Your task to perform on an android device: Do I have any events tomorrow? Image 0: 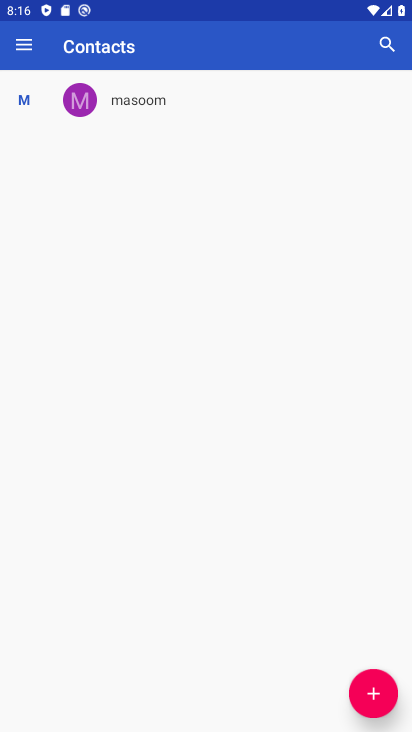
Step 0: press home button
Your task to perform on an android device: Do I have any events tomorrow? Image 1: 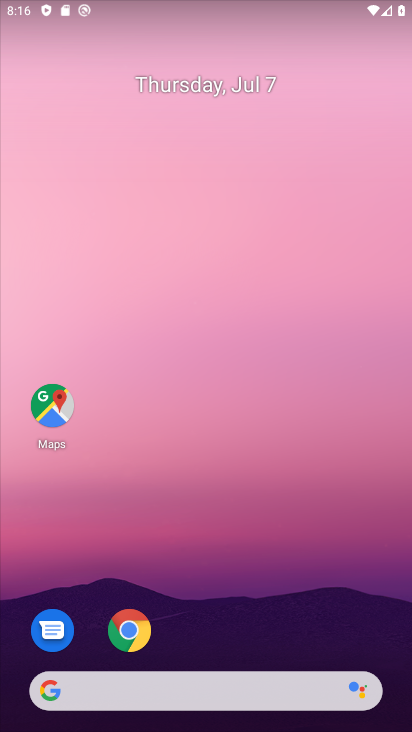
Step 1: drag from (328, 621) to (278, 312)
Your task to perform on an android device: Do I have any events tomorrow? Image 2: 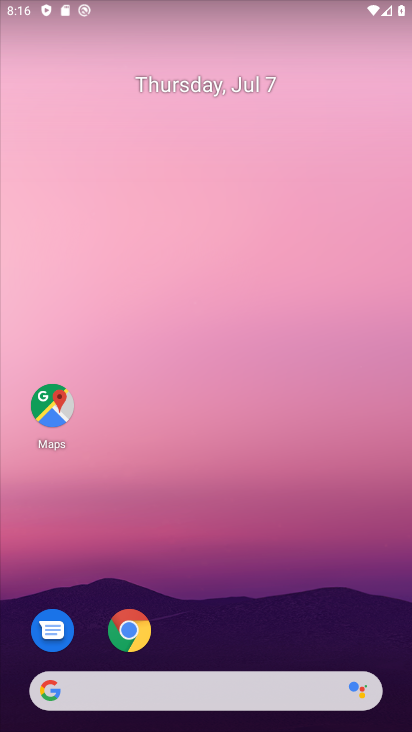
Step 2: drag from (238, 682) to (175, 284)
Your task to perform on an android device: Do I have any events tomorrow? Image 3: 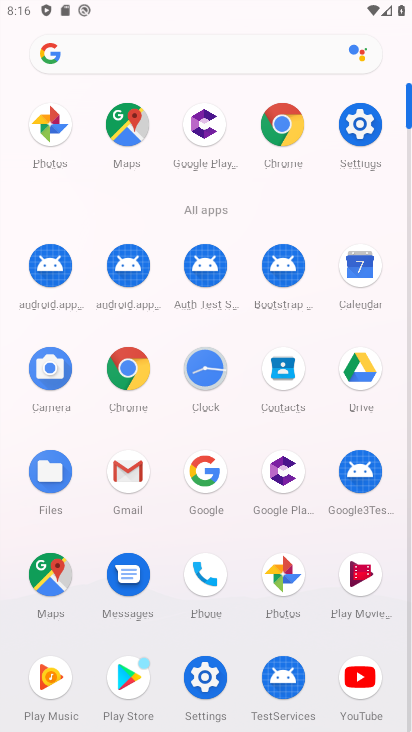
Step 3: click (370, 265)
Your task to perform on an android device: Do I have any events tomorrow? Image 4: 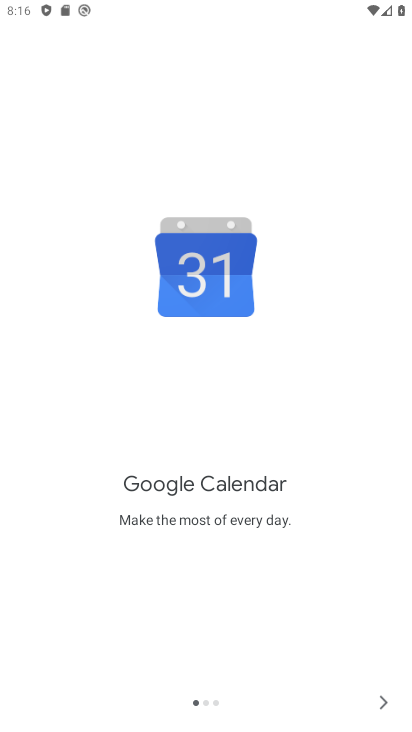
Step 4: click (381, 714)
Your task to perform on an android device: Do I have any events tomorrow? Image 5: 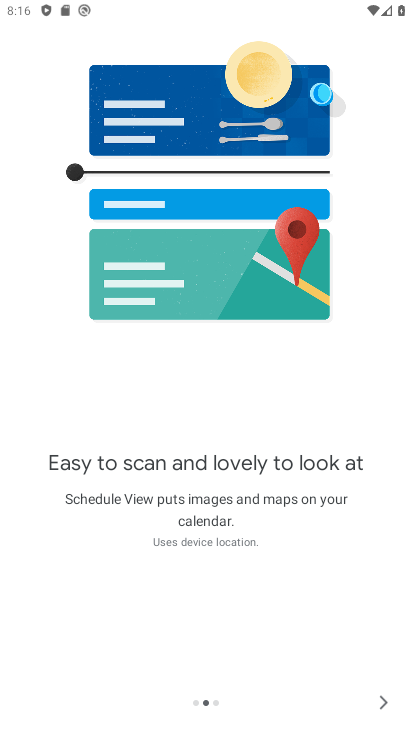
Step 5: click (381, 714)
Your task to perform on an android device: Do I have any events tomorrow? Image 6: 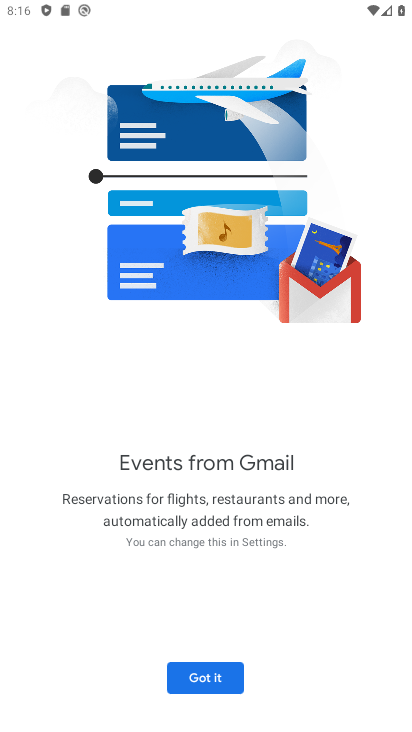
Step 6: click (381, 714)
Your task to perform on an android device: Do I have any events tomorrow? Image 7: 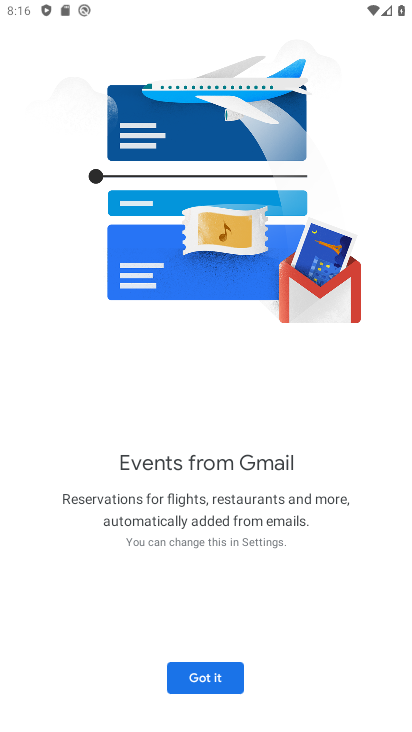
Step 7: click (188, 671)
Your task to perform on an android device: Do I have any events tomorrow? Image 8: 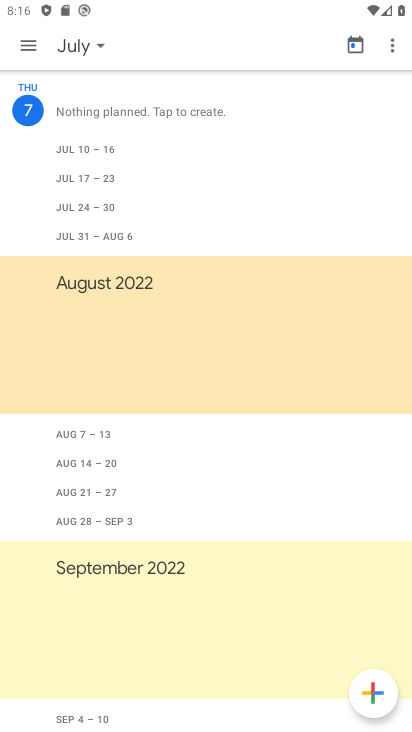
Step 8: click (80, 56)
Your task to perform on an android device: Do I have any events tomorrow? Image 9: 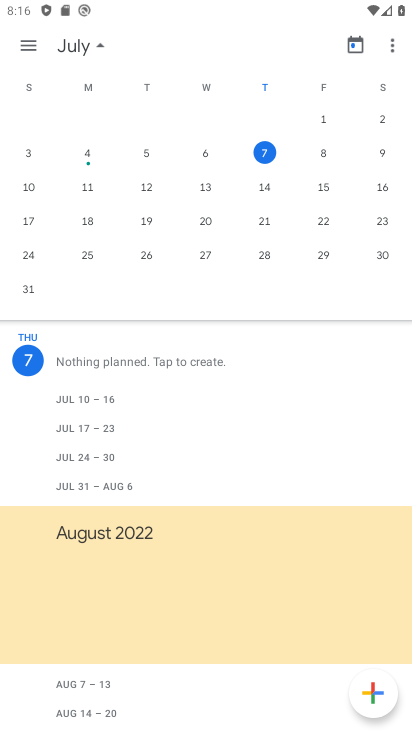
Step 9: click (329, 150)
Your task to perform on an android device: Do I have any events tomorrow? Image 10: 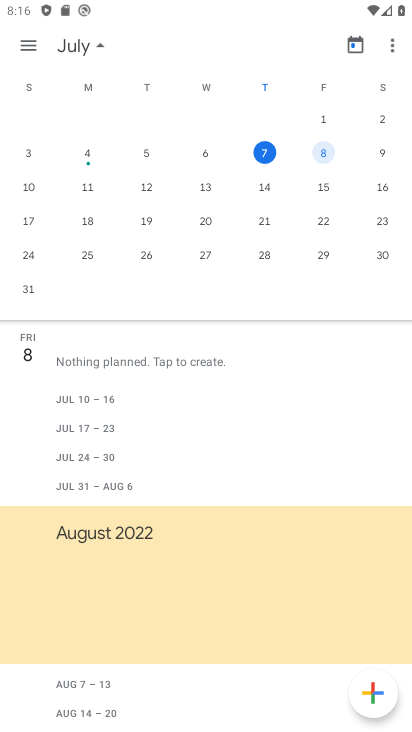
Step 10: task complete